Your task to perform on an android device: Open location settings Image 0: 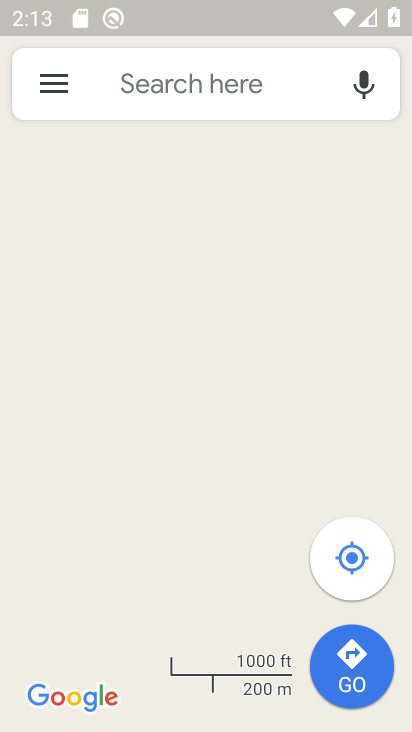
Step 0: press home button
Your task to perform on an android device: Open location settings Image 1: 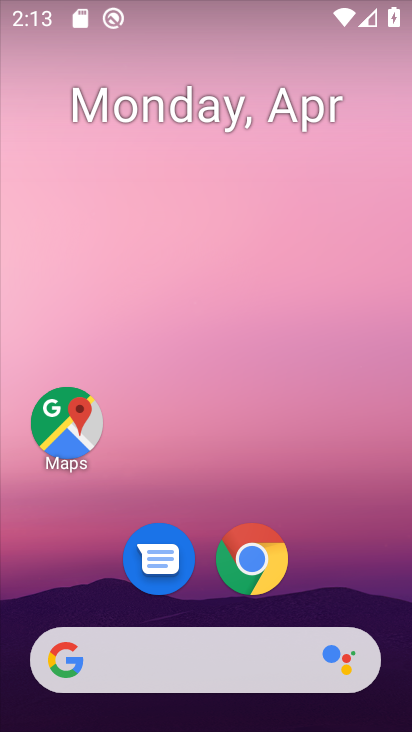
Step 1: drag from (205, 575) to (224, 9)
Your task to perform on an android device: Open location settings Image 2: 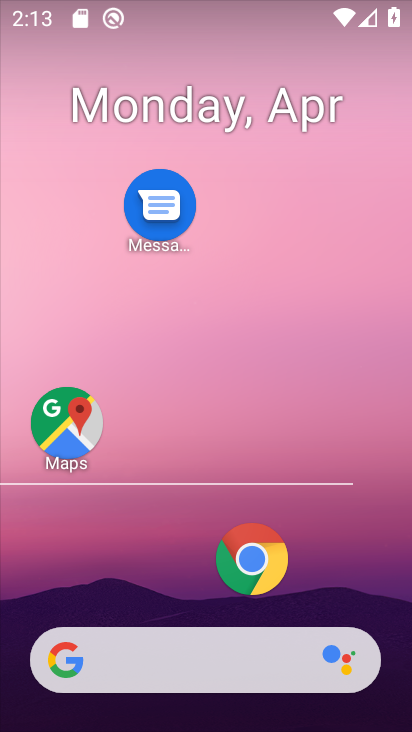
Step 2: drag from (159, 605) to (198, 0)
Your task to perform on an android device: Open location settings Image 3: 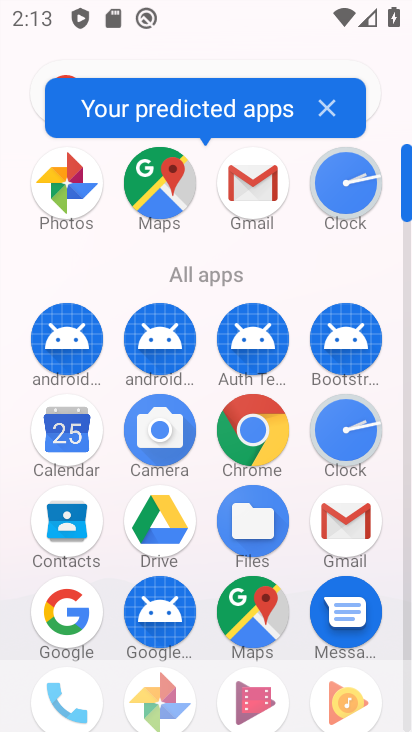
Step 3: drag from (191, 568) to (310, 8)
Your task to perform on an android device: Open location settings Image 4: 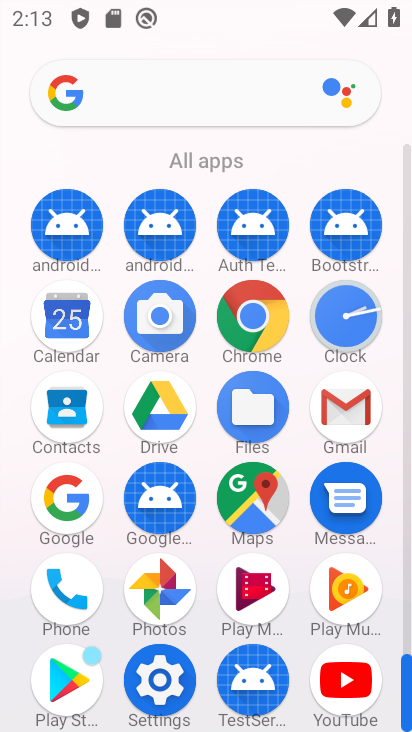
Step 4: click (170, 687)
Your task to perform on an android device: Open location settings Image 5: 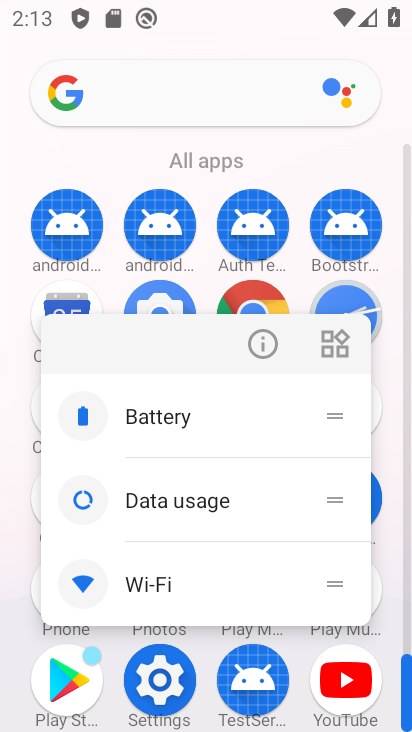
Step 5: click (153, 685)
Your task to perform on an android device: Open location settings Image 6: 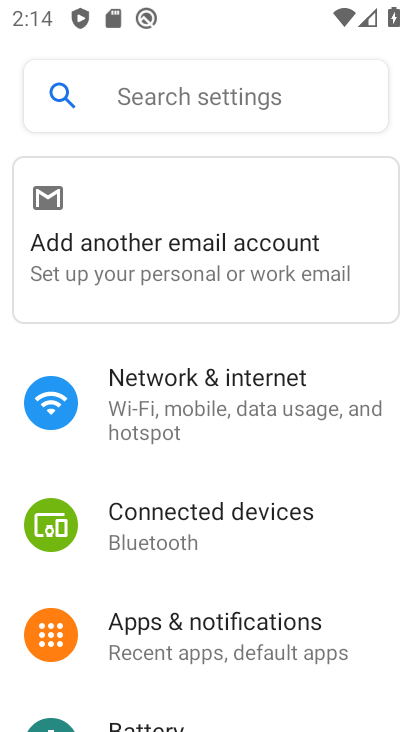
Step 6: drag from (183, 583) to (229, 327)
Your task to perform on an android device: Open location settings Image 7: 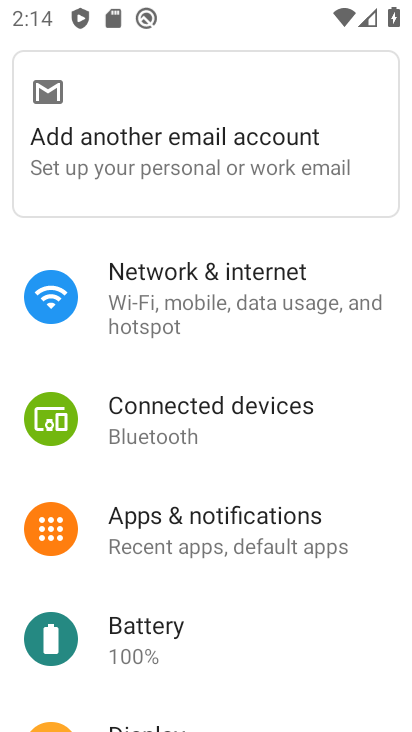
Step 7: drag from (193, 585) to (270, 150)
Your task to perform on an android device: Open location settings Image 8: 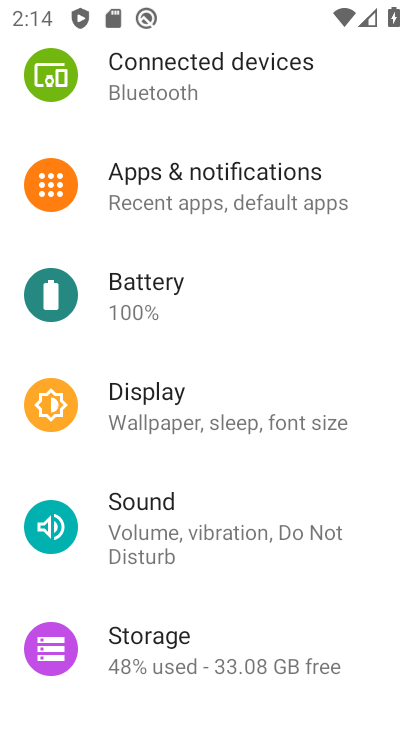
Step 8: drag from (204, 516) to (267, 123)
Your task to perform on an android device: Open location settings Image 9: 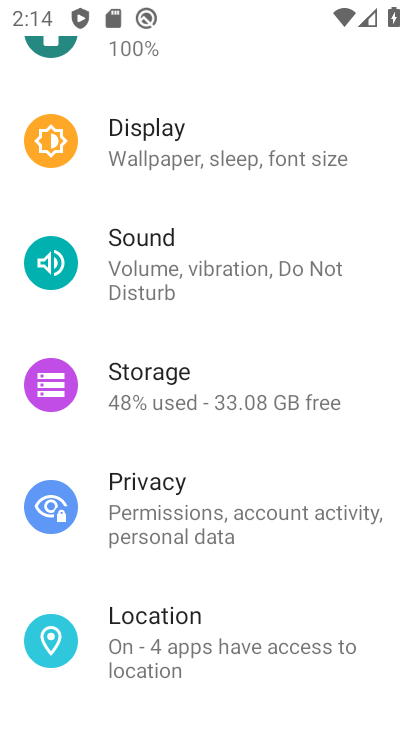
Step 9: click (153, 623)
Your task to perform on an android device: Open location settings Image 10: 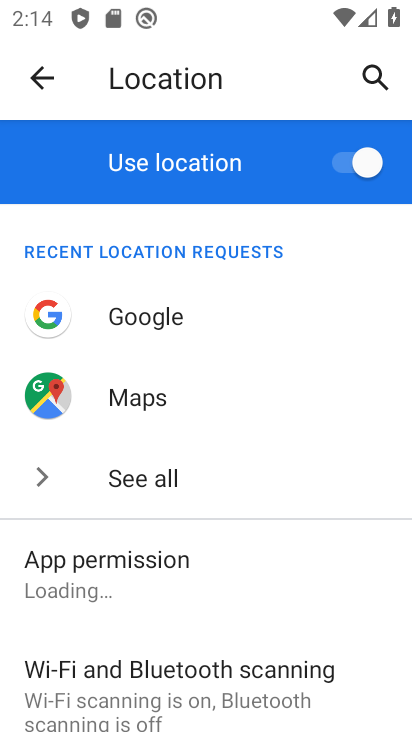
Step 10: task complete